Your task to perform on an android device: set default search engine in the chrome app Image 0: 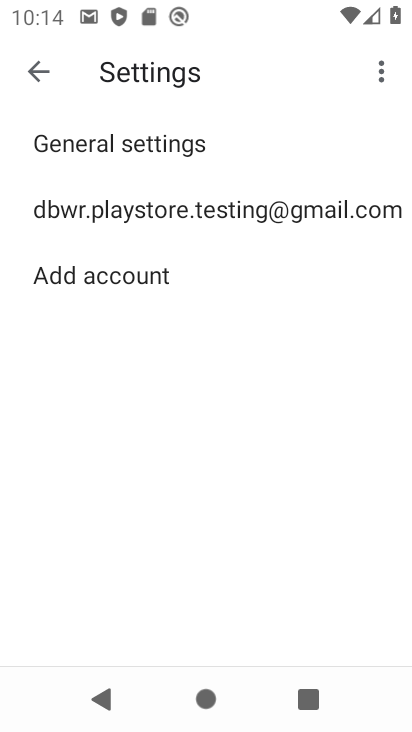
Step 0: press home button
Your task to perform on an android device: set default search engine in the chrome app Image 1: 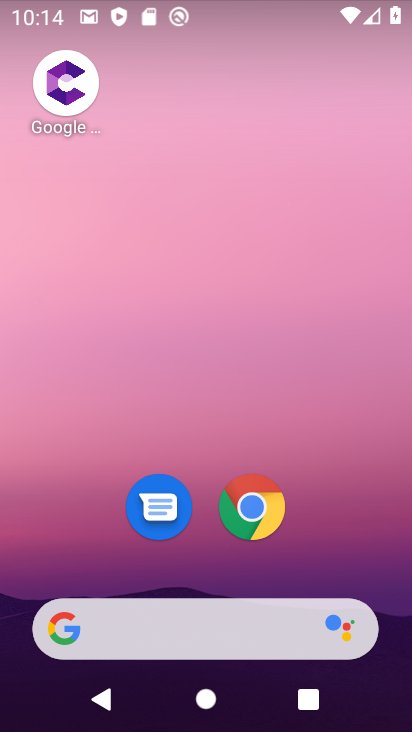
Step 1: click (256, 528)
Your task to perform on an android device: set default search engine in the chrome app Image 2: 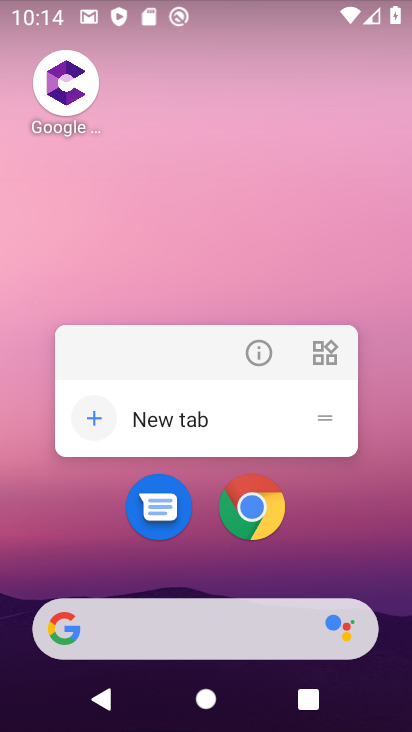
Step 2: click (257, 497)
Your task to perform on an android device: set default search engine in the chrome app Image 3: 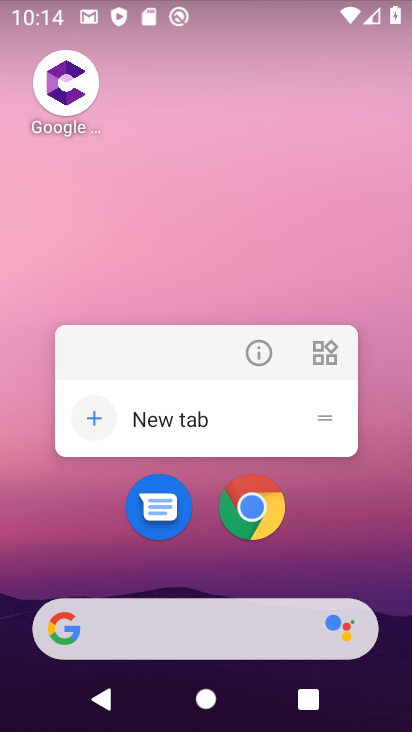
Step 3: click (264, 530)
Your task to perform on an android device: set default search engine in the chrome app Image 4: 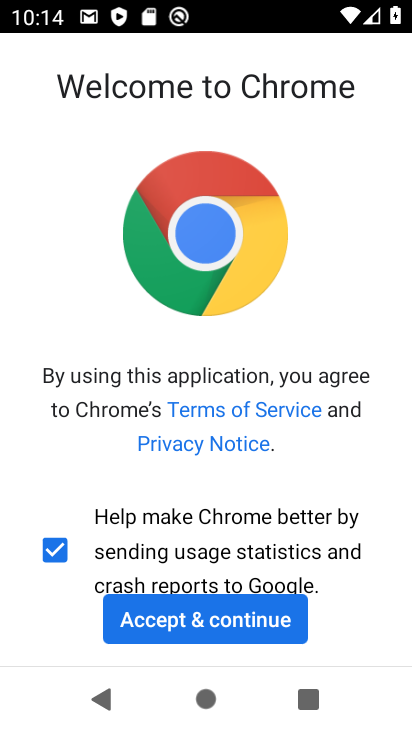
Step 4: click (194, 617)
Your task to perform on an android device: set default search engine in the chrome app Image 5: 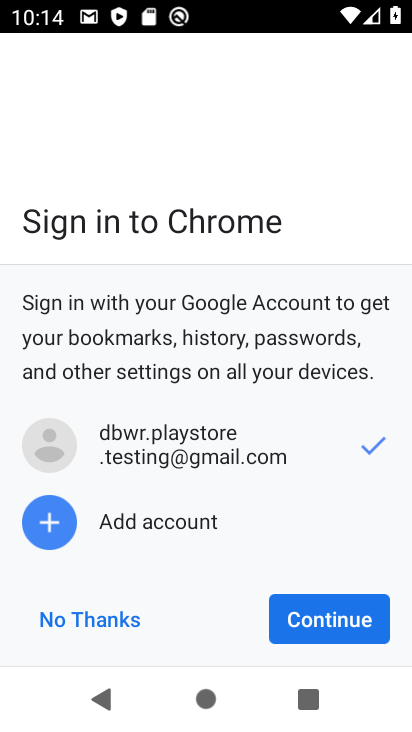
Step 5: click (325, 623)
Your task to perform on an android device: set default search engine in the chrome app Image 6: 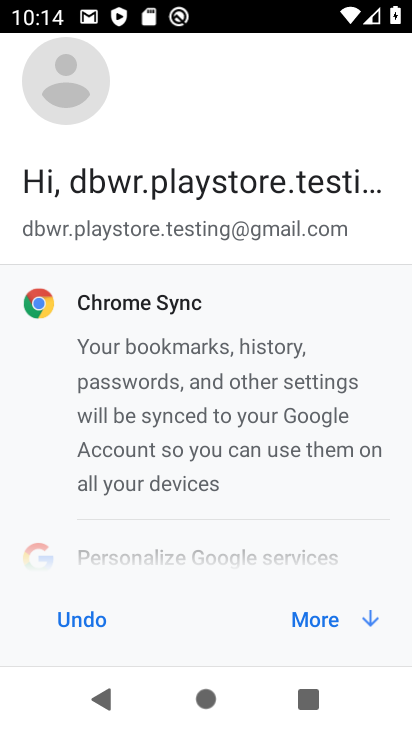
Step 6: click (325, 622)
Your task to perform on an android device: set default search engine in the chrome app Image 7: 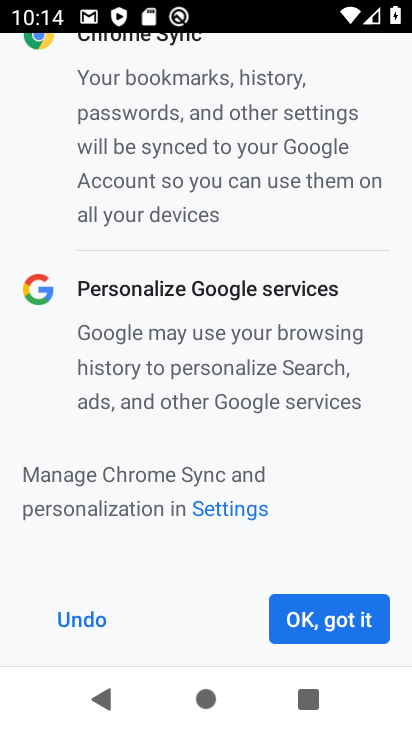
Step 7: click (325, 622)
Your task to perform on an android device: set default search engine in the chrome app Image 8: 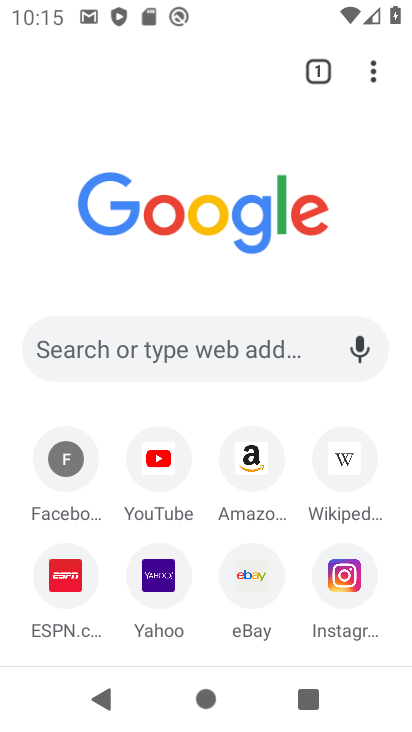
Step 8: drag from (369, 79) to (283, 508)
Your task to perform on an android device: set default search engine in the chrome app Image 9: 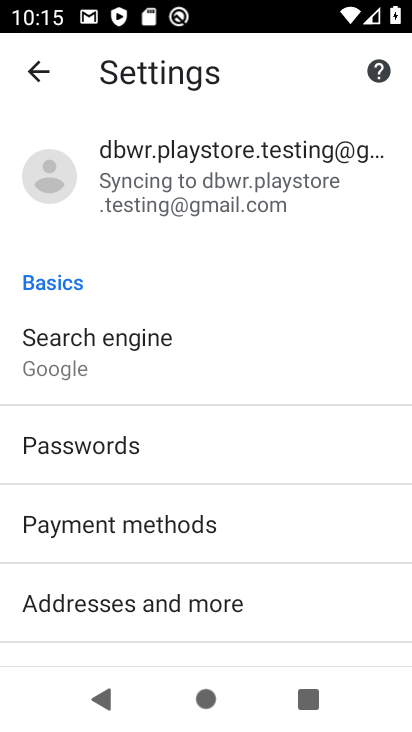
Step 9: click (167, 371)
Your task to perform on an android device: set default search engine in the chrome app Image 10: 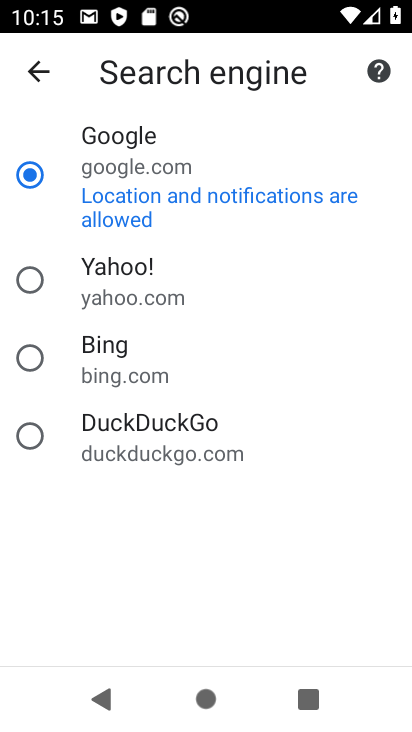
Step 10: click (167, 371)
Your task to perform on an android device: set default search engine in the chrome app Image 11: 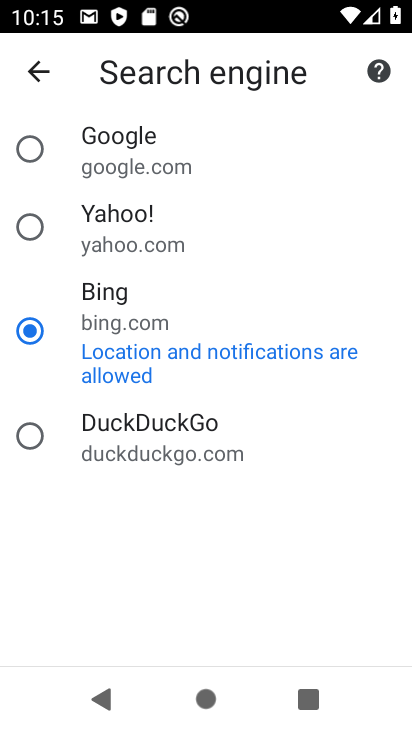
Step 11: task complete